Your task to perform on an android device: Go to wifi settings Image 0: 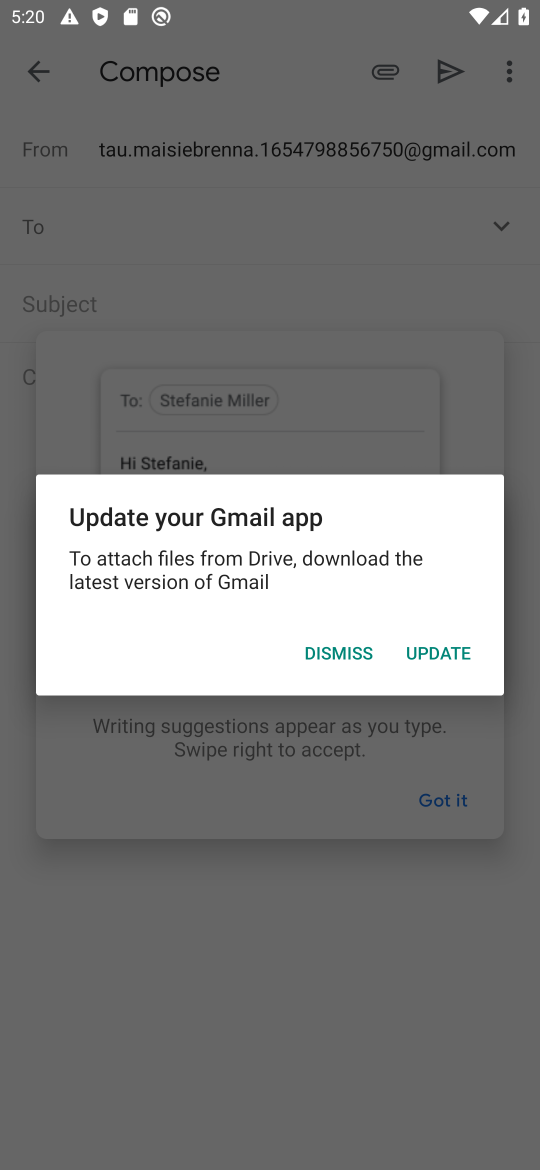
Step 0: press home button
Your task to perform on an android device: Go to wifi settings Image 1: 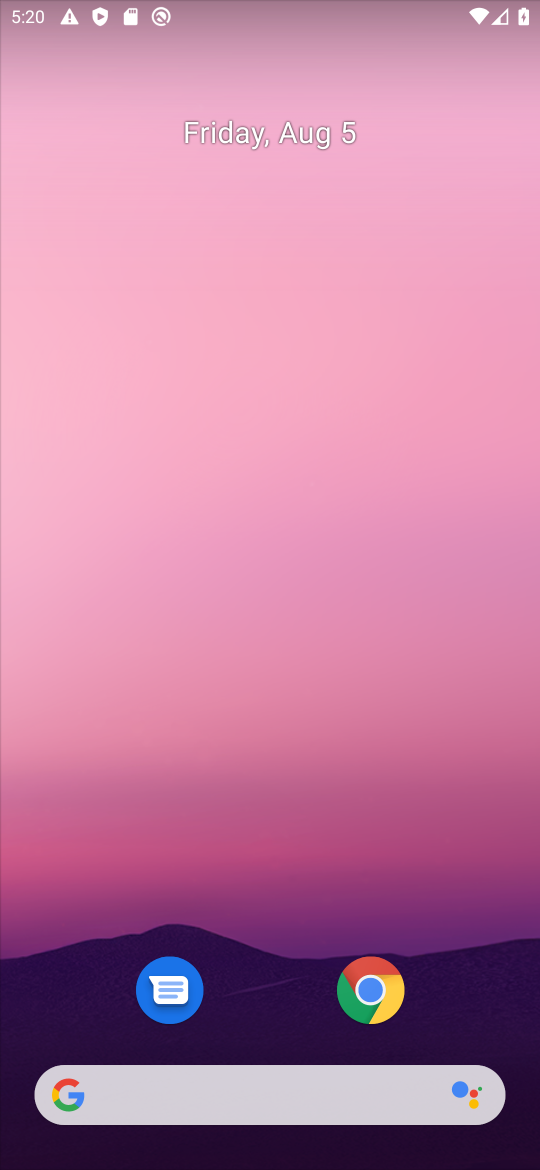
Step 1: drag from (242, 1079) to (260, 309)
Your task to perform on an android device: Go to wifi settings Image 2: 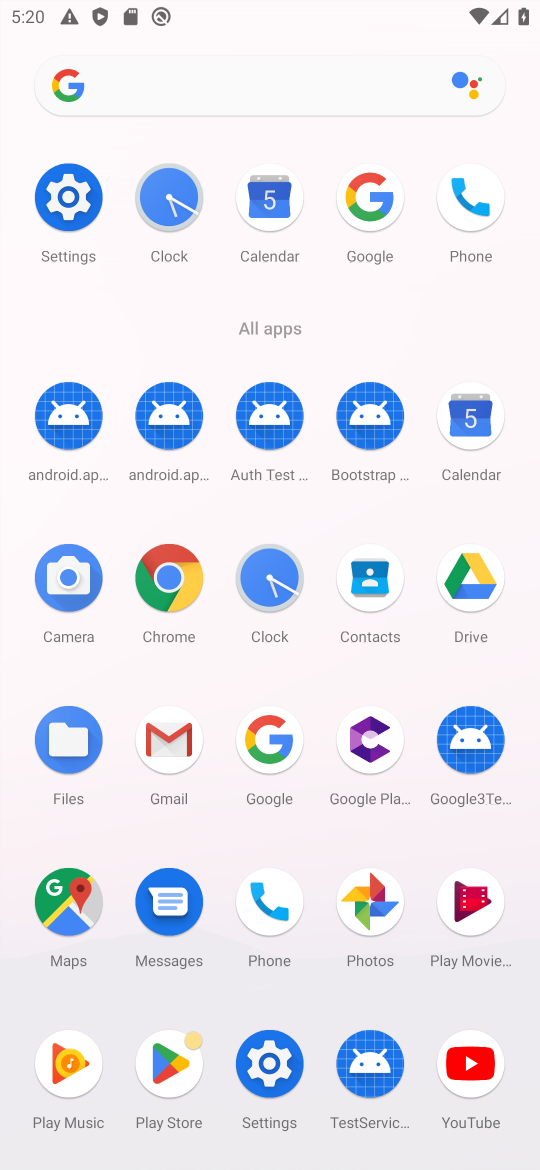
Step 2: click (74, 193)
Your task to perform on an android device: Go to wifi settings Image 3: 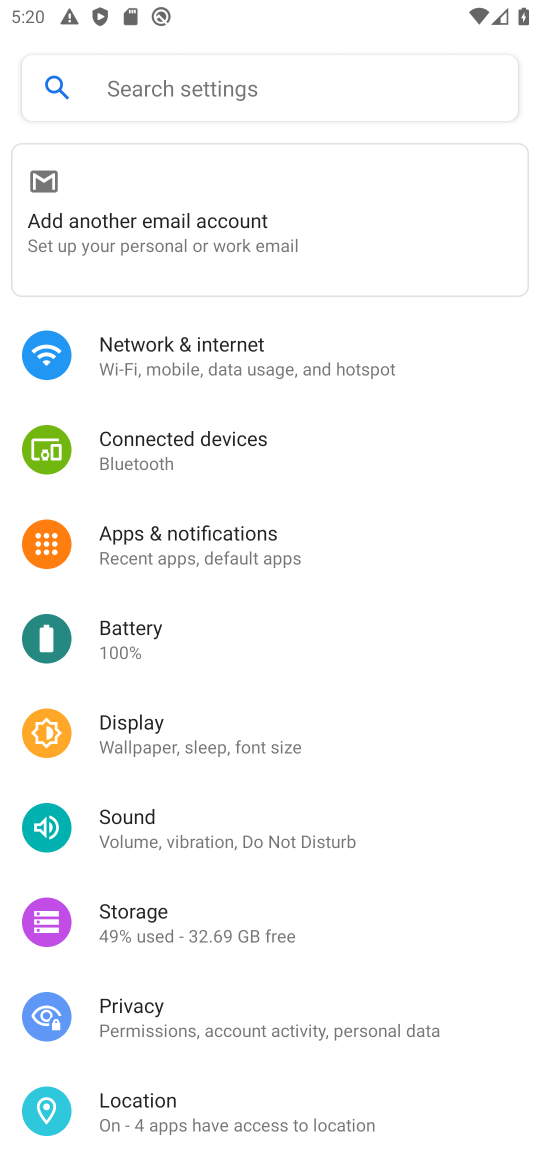
Step 3: click (235, 355)
Your task to perform on an android device: Go to wifi settings Image 4: 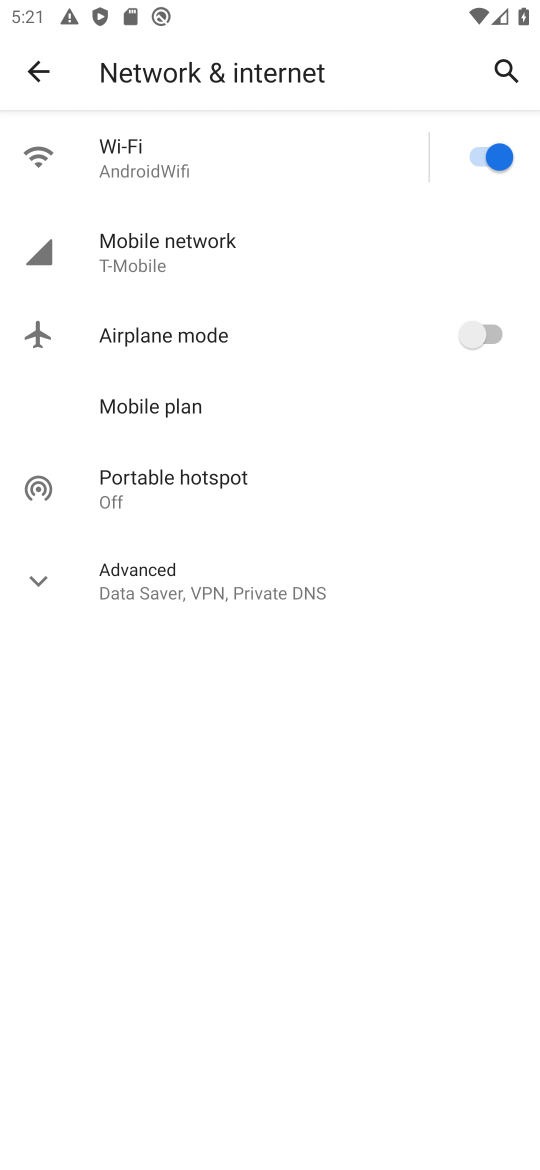
Step 4: click (121, 165)
Your task to perform on an android device: Go to wifi settings Image 5: 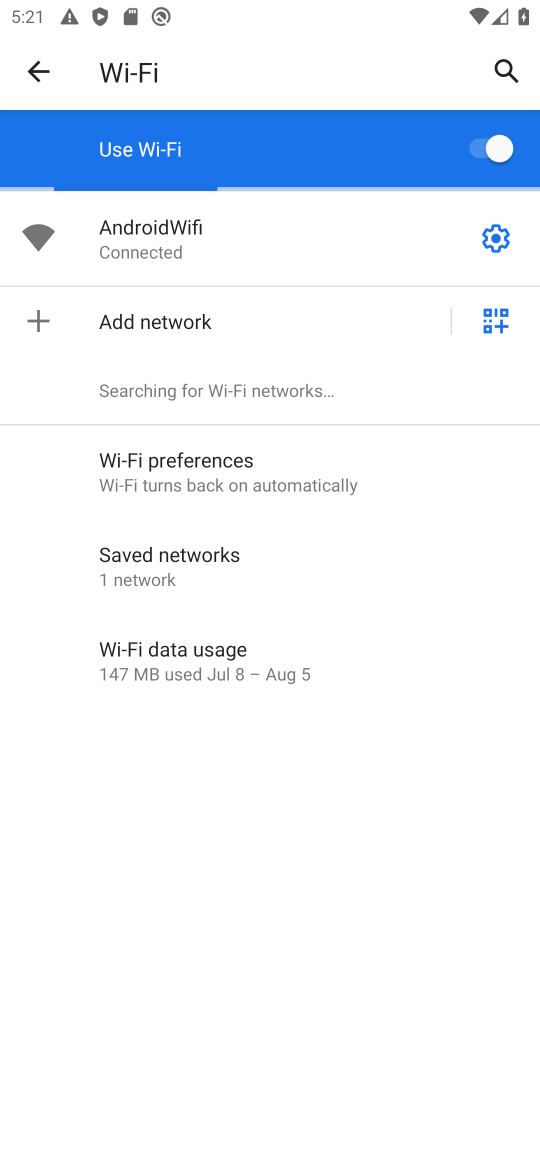
Step 5: click (479, 242)
Your task to perform on an android device: Go to wifi settings Image 6: 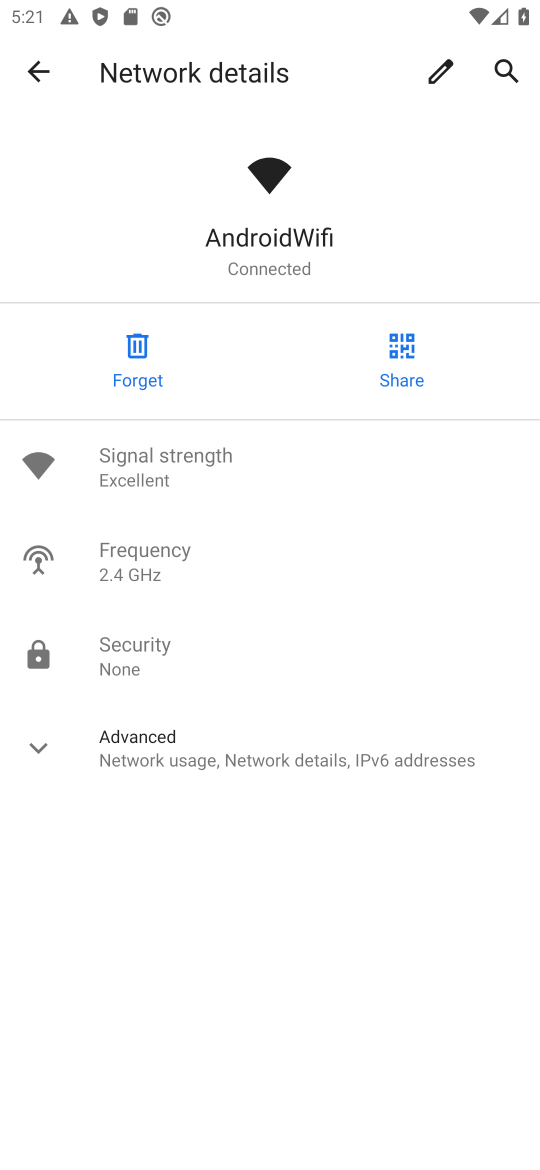
Step 6: task complete